Your task to perform on an android device: change alarm snooze length Image 0: 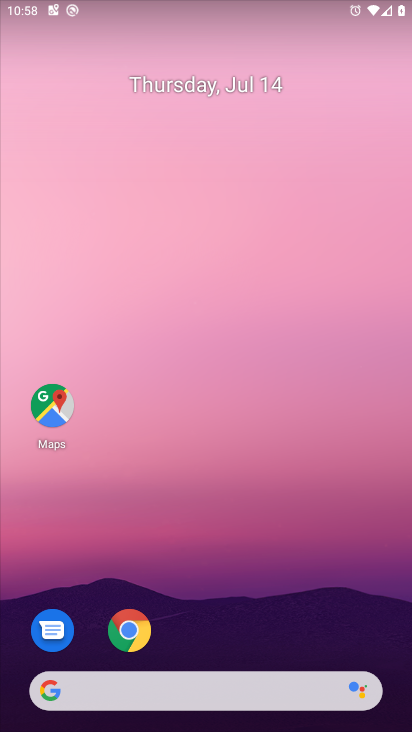
Step 0: drag from (6, 688) to (405, 479)
Your task to perform on an android device: change alarm snooze length Image 1: 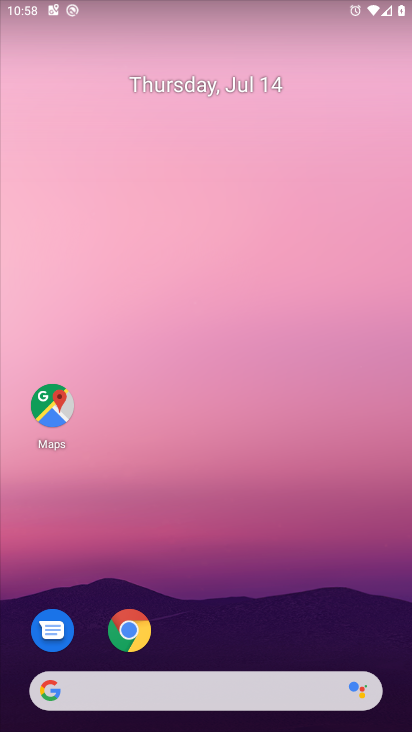
Step 1: click (225, 450)
Your task to perform on an android device: change alarm snooze length Image 2: 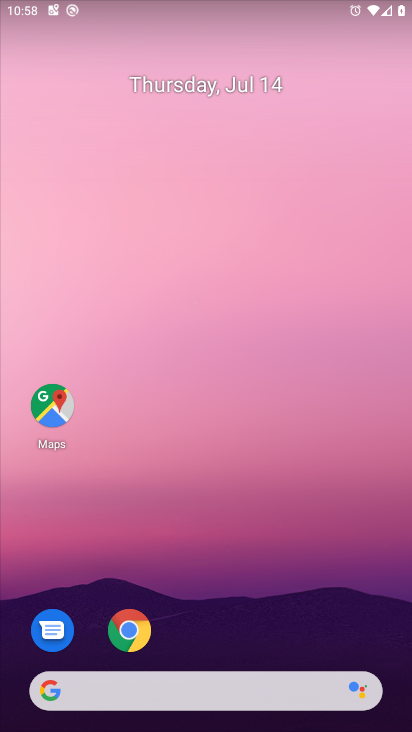
Step 2: drag from (31, 701) to (234, 199)
Your task to perform on an android device: change alarm snooze length Image 3: 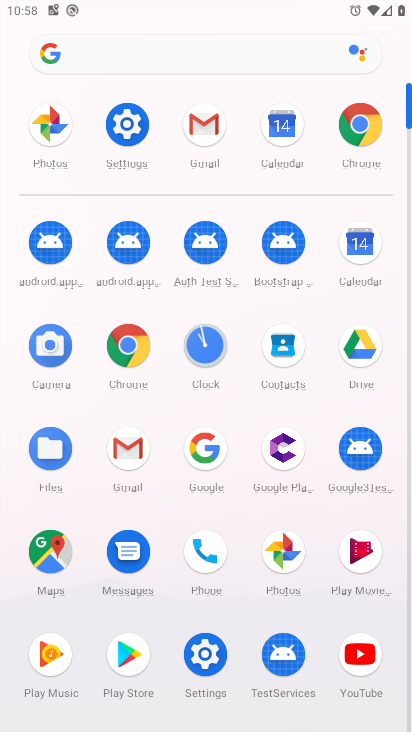
Step 3: click (204, 357)
Your task to perform on an android device: change alarm snooze length Image 4: 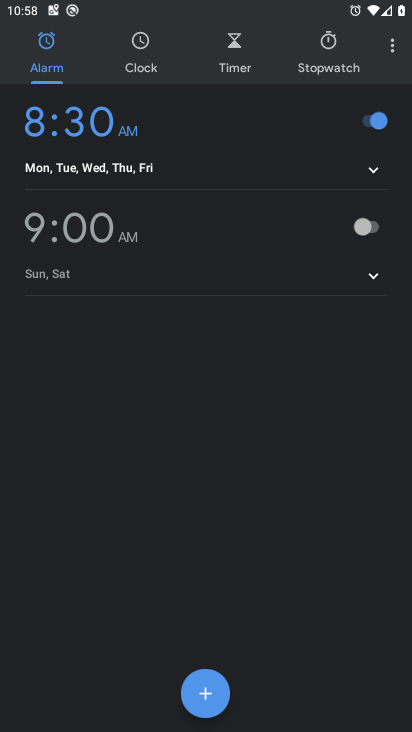
Step 4: click (398, 51)
Your task to perform on an android device: change alarm snooze length Image 5: 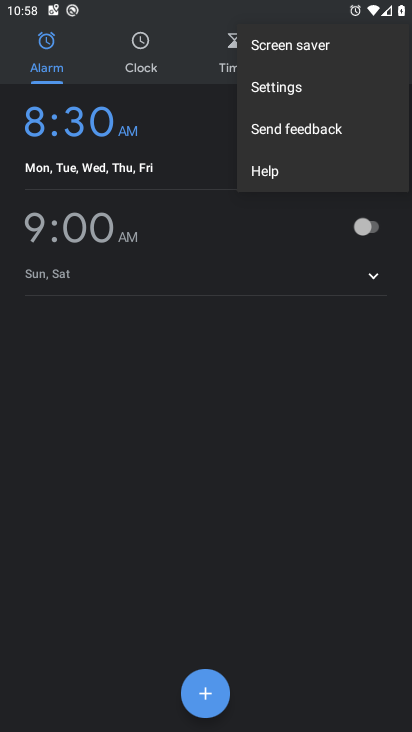
Step 5: click (271, 92)
Your task to perform on an android device: change alarm snooze length Image 6: 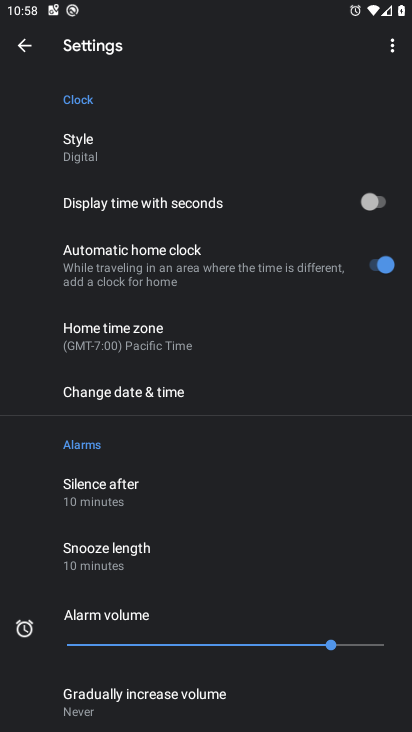
Step 6: click (81, 571)
Your task to perform on an android device: change alarm snooze length Image 7: 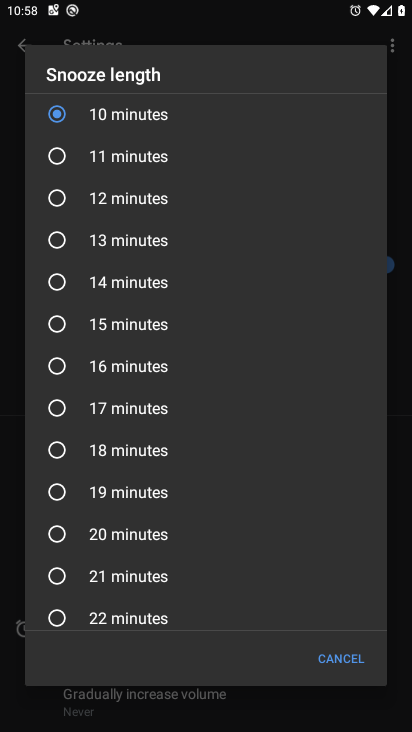
Step 7: click (63, 193)
Your task to perform on an android device: change alarm snooze length Image 8: 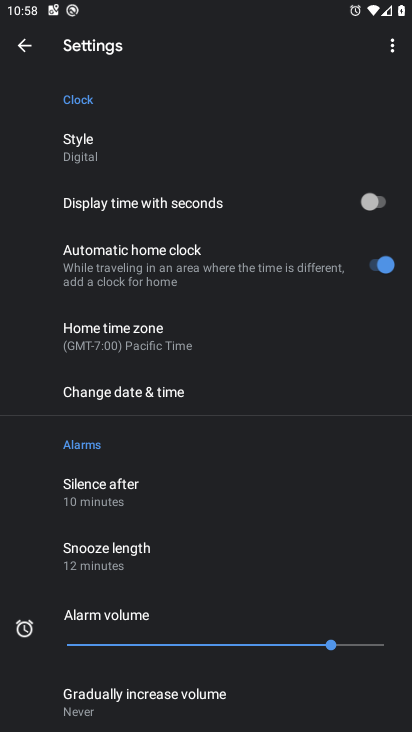
Step 8: task complete